Your task to perform on an android device: empty trash in the gmail app Image 0: 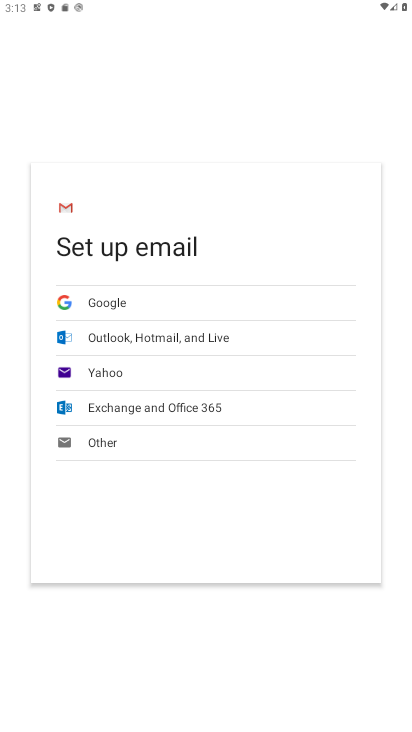
Step 0: press home button
Your task to perform on an android device: empty trash in the gmail app Image 1: 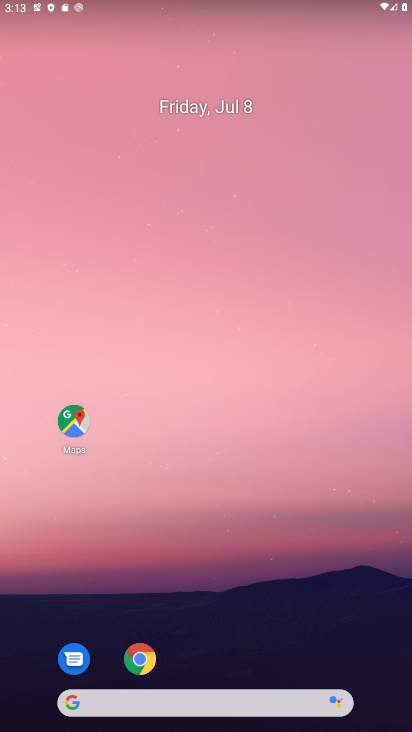
Step 1: drag from (200, 629) to (150, 230)
Your task to perform on an android device: empty trash in the gmail app Image 2: 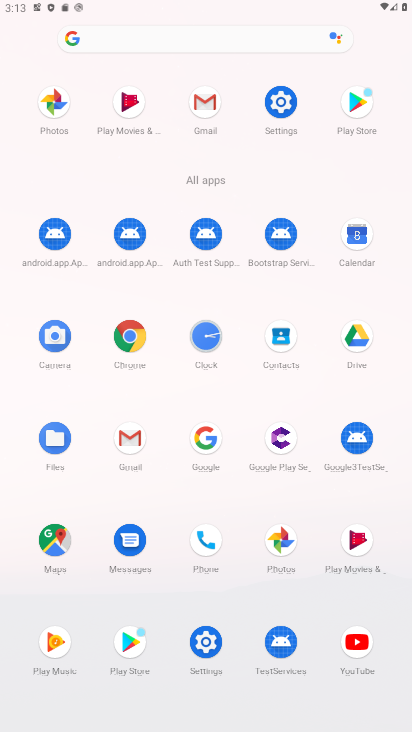
Step 2: click (186, 111)
Your task to perform on an android device: empty trash in the gmail app Image 3: 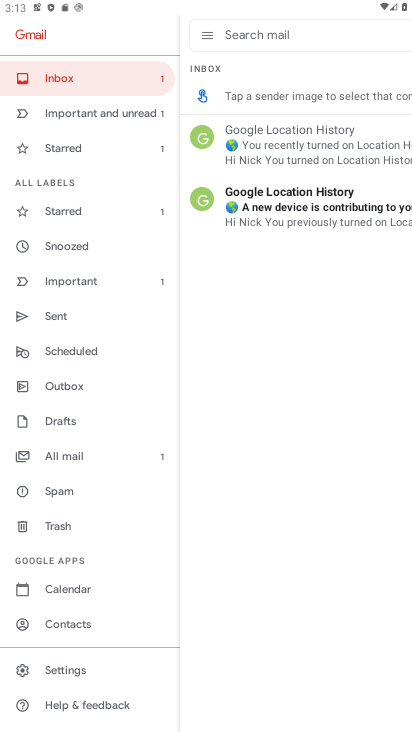
Step 3: click (77, 527)
Your task to perform on an android device: empty trash in the gmail app Image 4: 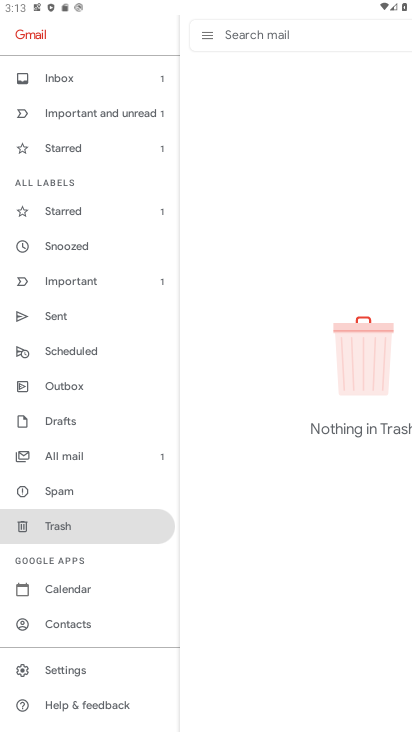
Step 4: task complete